Your task to perform on an android device: turn off notifications in google photos Image 0: 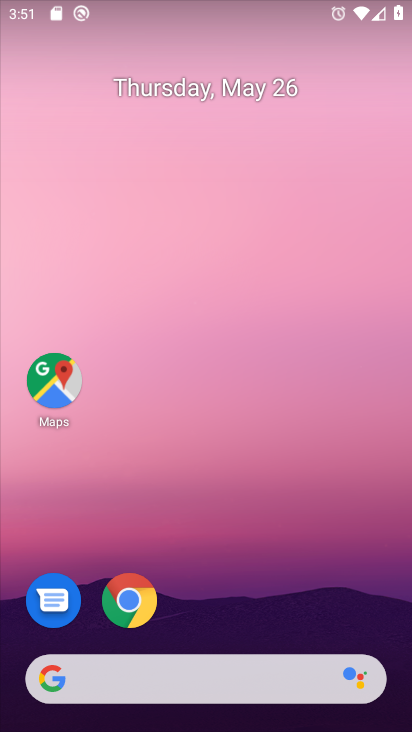
Step 0: drag from (208, 621) to (294, 0)
Your task to perform on an android device: turn off notifications in google photos Image 1: 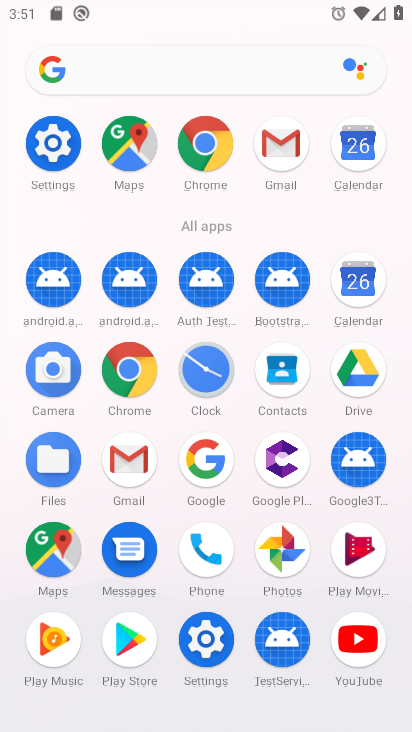
Step 1: click (56, 135)
Your task to perform on an android device: turn off notifications in google photos Image 2: 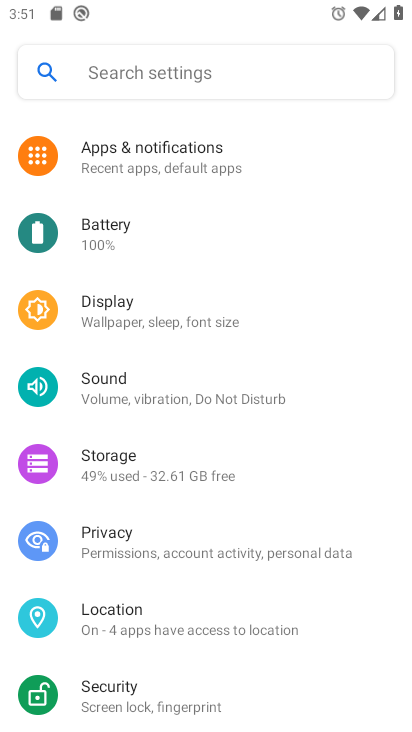
Step 2: press home button
Your task to perform on an android device: turn off notifications in google photos Image 3: 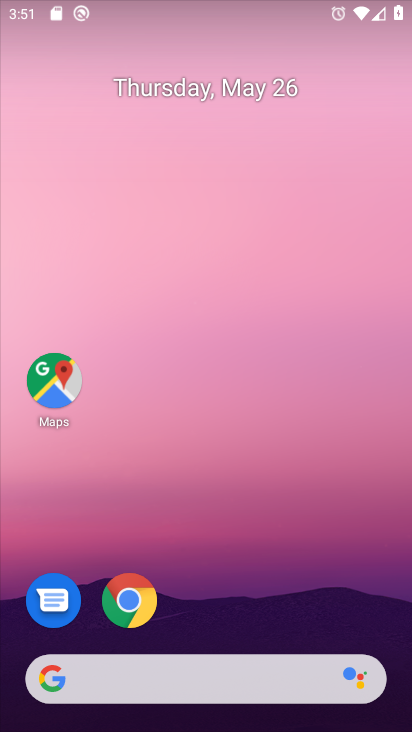
Step 3: drag from (238, 586) to (379, 9)
Your task to perform on an android device: turn off notifications in google photos Image 4: 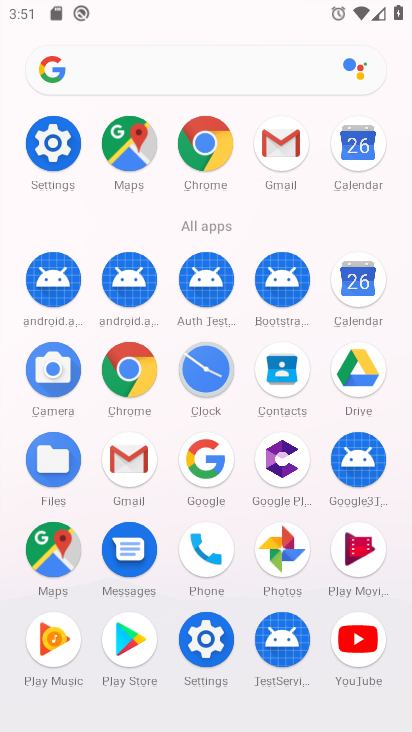
Step 4: click (288, 562)
Your task to perform on an android device: turn off notifications in google photos Image 5: 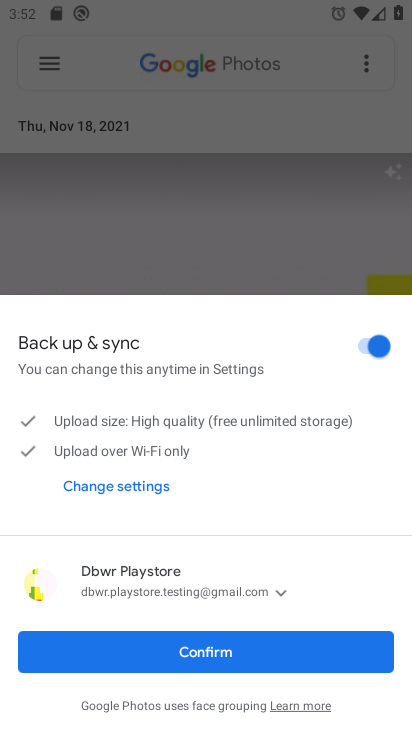
Step 5: click (221, 659)
Your task to perform on an android device: turn off notifications in google photos Image 6: 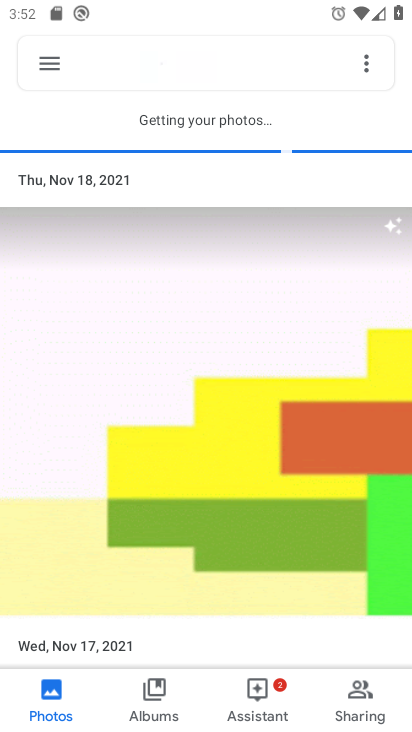
Step 6: click (55, 73)
Your task to perform on an android device: turn off notifications in google photos Image 7: 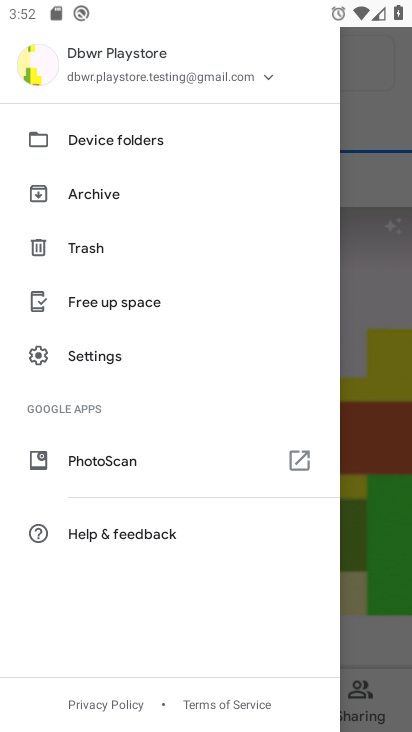
Step 7: click (87, 366)
Your task to perform on an android device: turn off notifications in google photos Image 8: 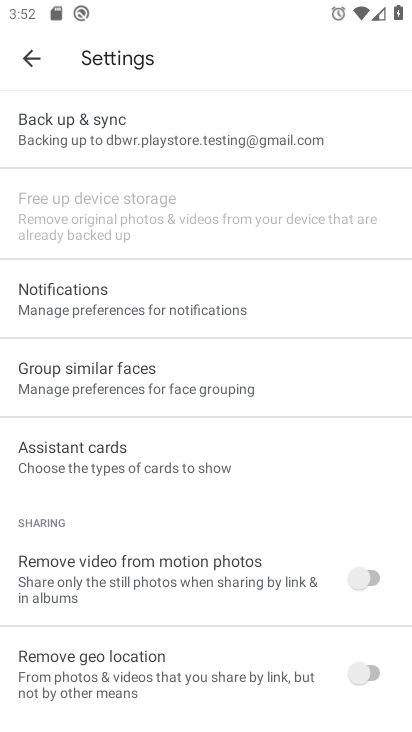
Step 8: click (117, 303)
Your task to perform on an android device: turn off notifications in google photos Image 9: 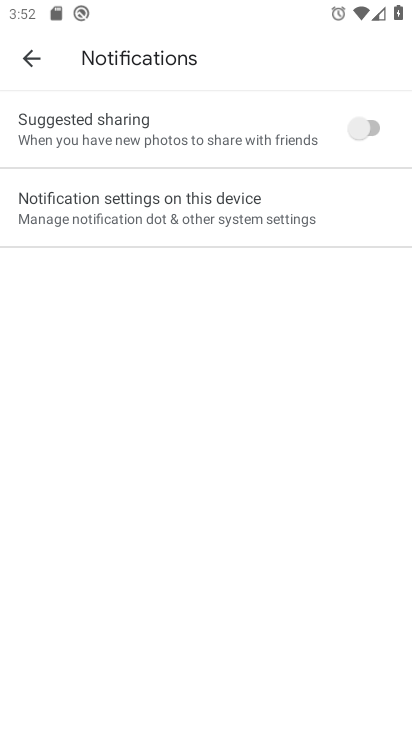
Step 9: click (156, 203)
Your task to perform on an android device: turn off notifications in google photos Image 10: 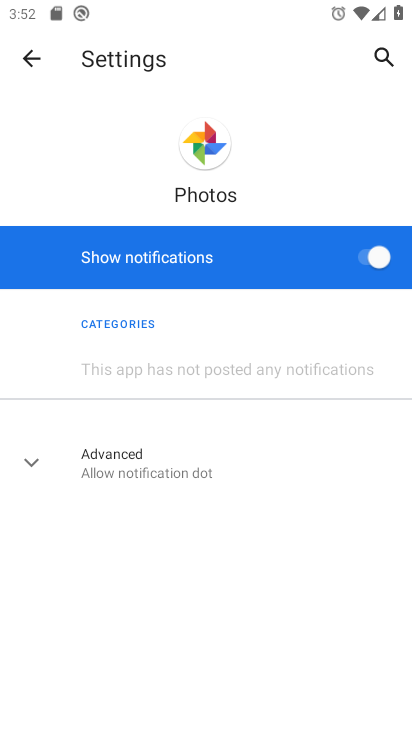
Step 10: click (356, 260)
Your task to perform on an android device: turn off notifications in google photos Image 11: 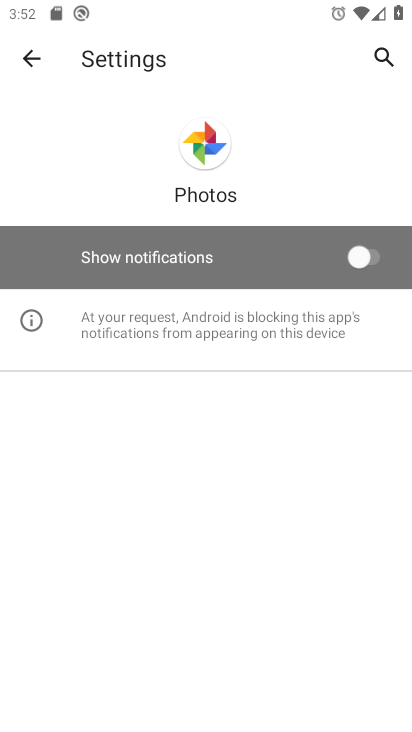
Step 11: task complete